Your task to perform on an android device: move an email to a new category in the gmail app Image 0: 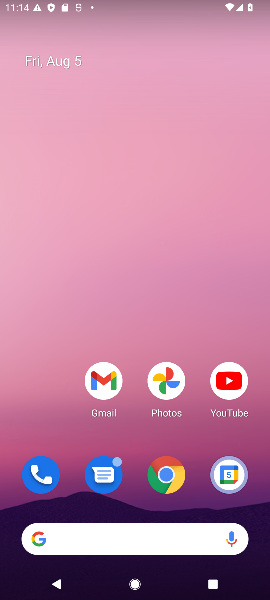
Step 0: click (103, 389)
Your task to perform on an android device: move an email to a new category in the gmail app Image 1: 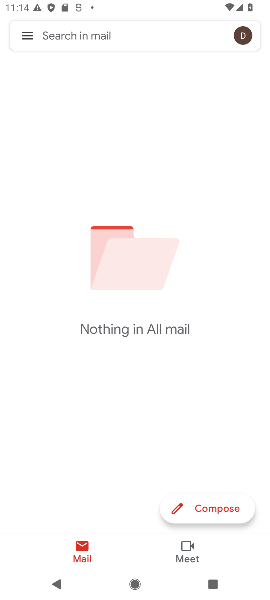
Step 1: click (26, 28)
Your task to perform on an android device: move an email to a new category in the gmail app Image 2: 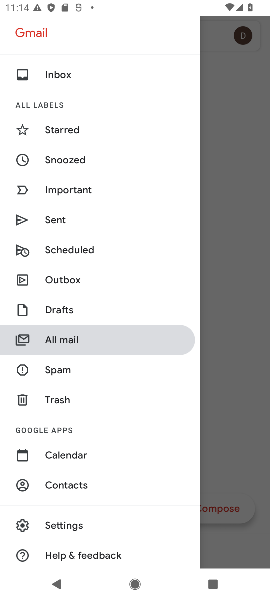
Step 2: click (67, 70)
Your task to perform on an android device: move an email to a new category in the gmail app Image 3: 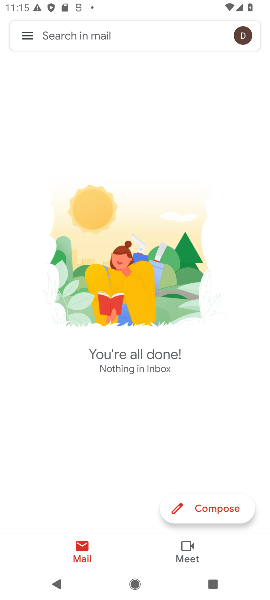
Step 3: task complete